Your task to perform on an android device: What's the weather going to be this weekend? Image 0: 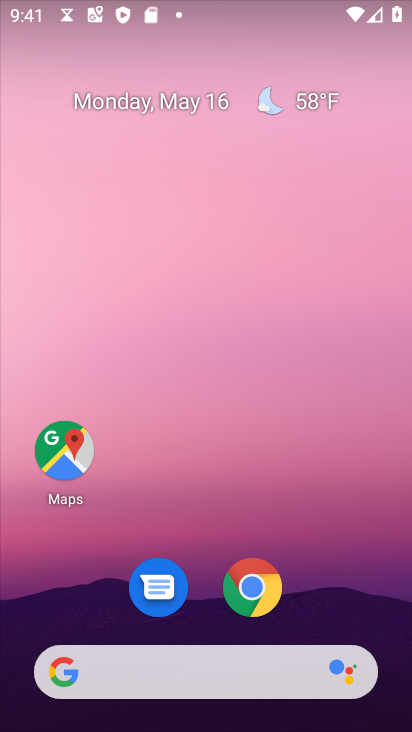
Step 0: click (270, 583)
Your task to perform on an android device: What's the weather going to be this weekend? Image 1: 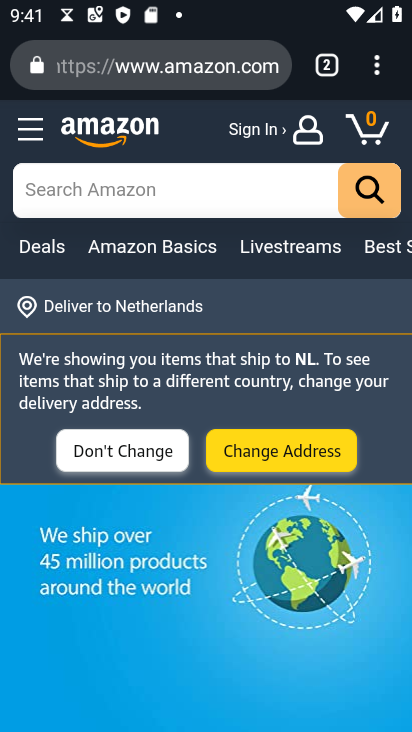
Step 1: click (165, 59)
Your task to perform on an android device: What's the weather going to be this weekend? Image 2: 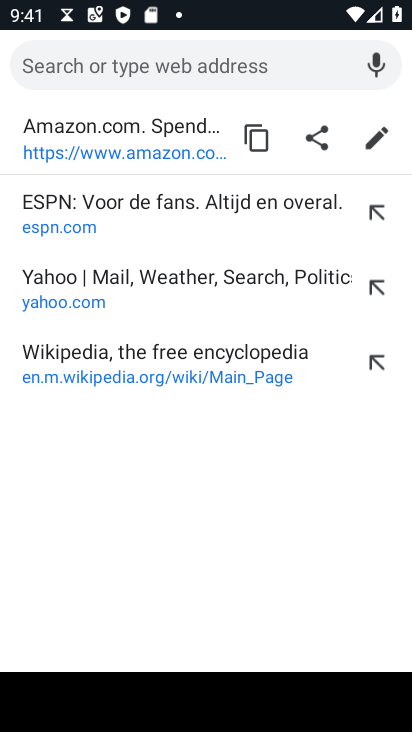
Step 2: type "What's the weather going to be this weekend?"
Your task to perform on an android device: What's the weather going to be this weekend? Image 3: 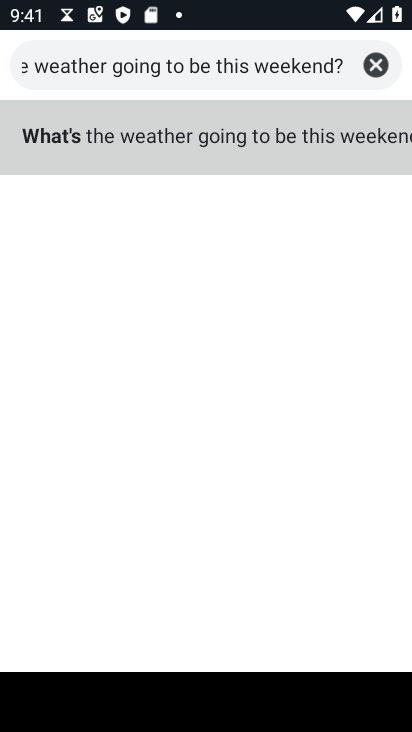
Step 3: click (162, 149)
Your task to perform on an android device: What's the weather going to be this weekend? Image 4: 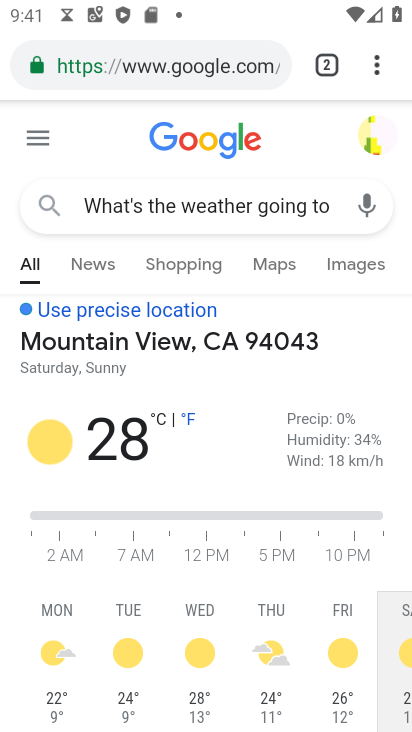
Step 4: task complete